Your task to perform on an android device: Find coffee shops on Maps Image 0: 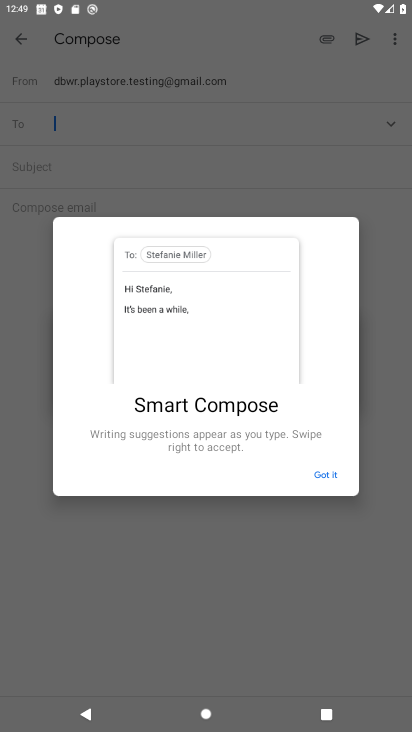
Step 0: press home button
Your task to perform on an android device: Find coffee shops on Maps Image 1: 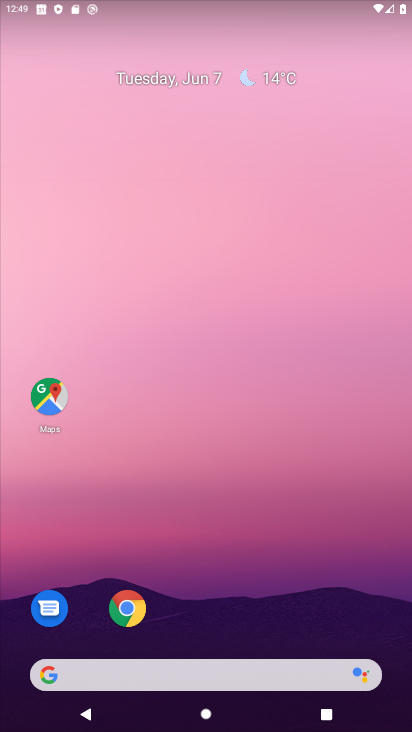
Step 1: click (39, 395)
Your task to perform on an android device: Find coffee shops on Maps Image 2: 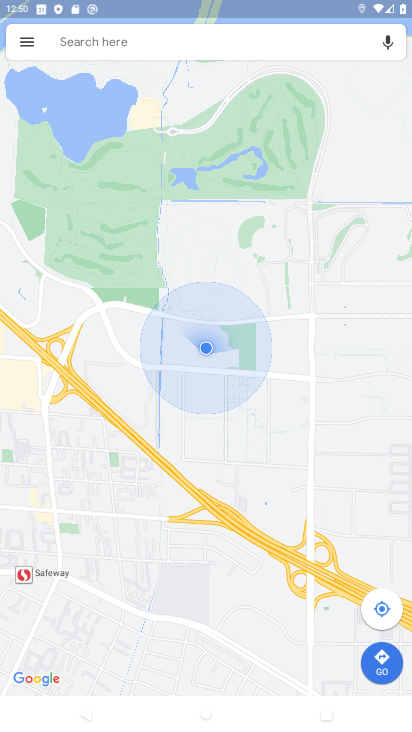
Step 2: type "coffee shops"
Your task to perform on an android device: Find coffee shops on Maps Image 3: 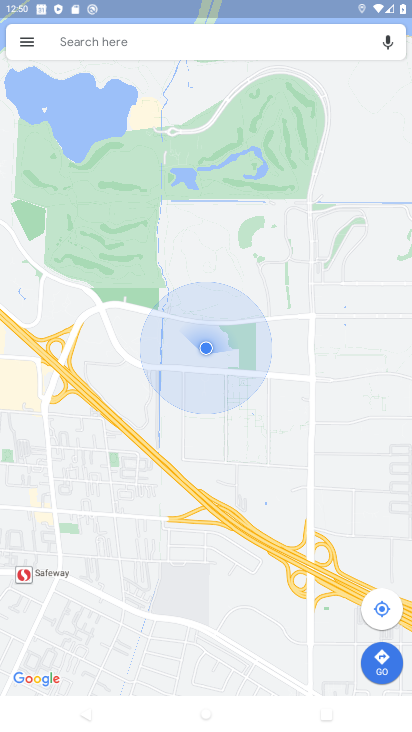
Step 3: click (176, 45)
Your task to perform on an android device: Find coffee shops on Maps Image 4: 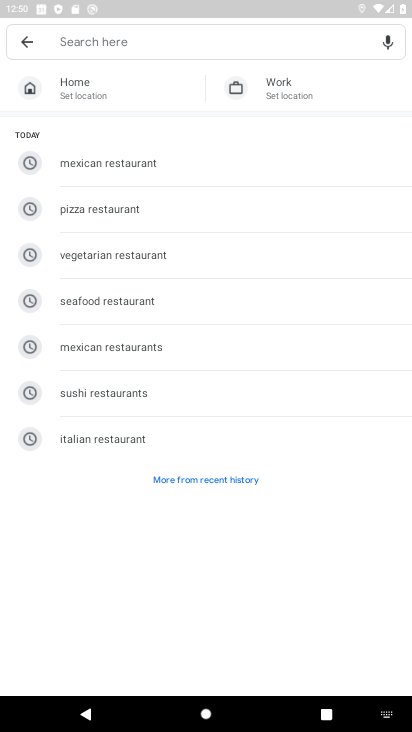
Step 4: click (133, 43)
Your task to perform on an android device: Find coffee shops on Maps Image 5: 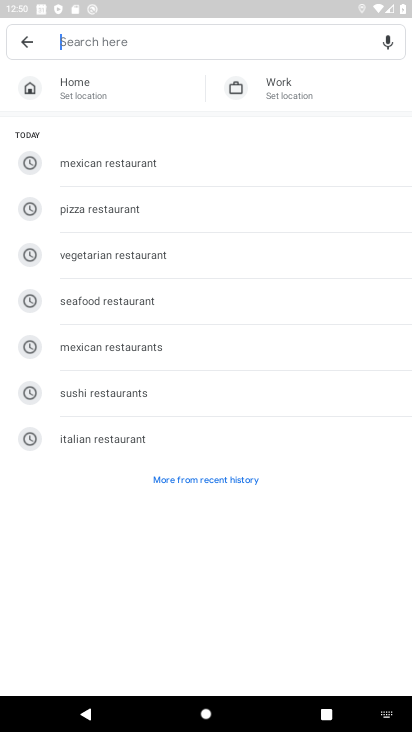
Step 5: type "coffee shops"
Your task to perform on an android device: Find coffee shops on Maps Image 6: 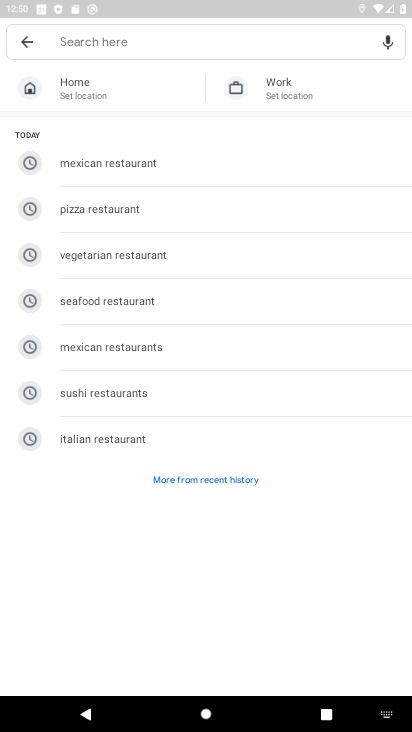
Step 6: click (137, 38)
Your task to perform on an android device: Find coffee shops on Maps Image 7: 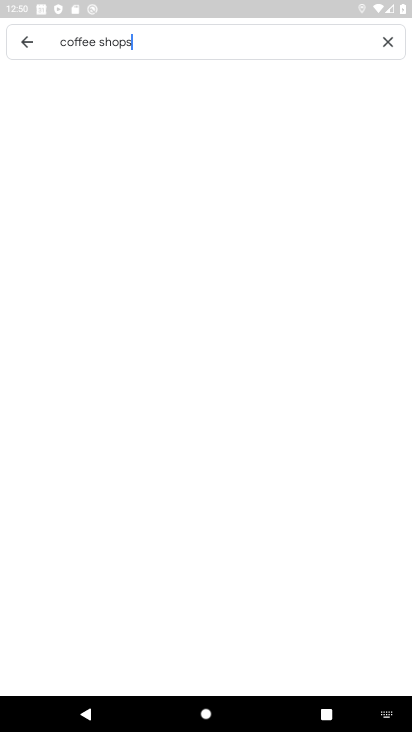
Step 7: click (129, 46)
Your task to perform on an android device: Find coffee shops on Maps Image 8: 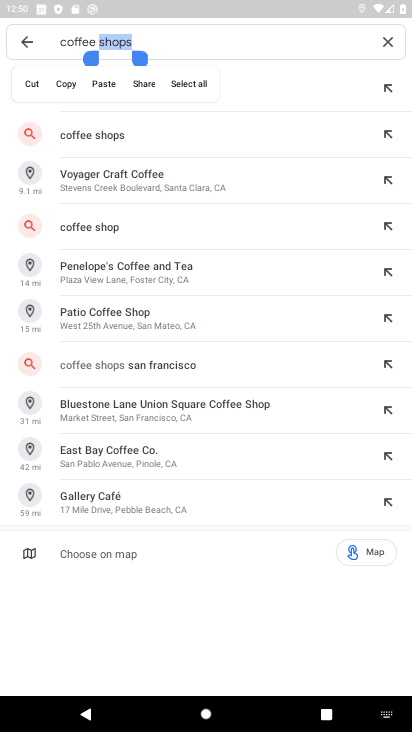
Step 8: click (97, 135)
Your task to perform on an android device: Find coffee shops on Maps Image 9: 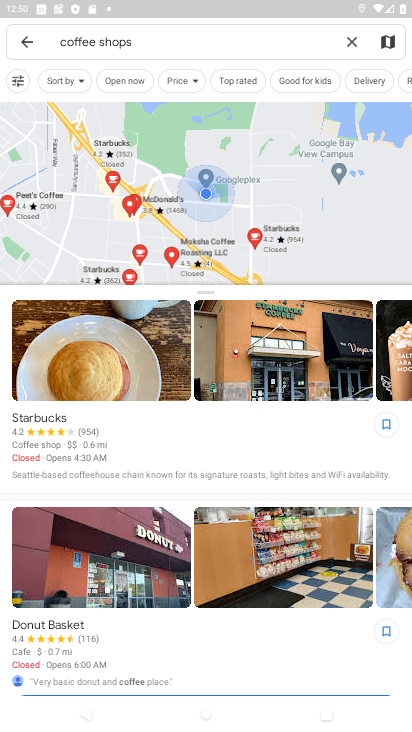
Step 9: task complete